Your task to perform on an android device: Open accessibility settings Image 0: 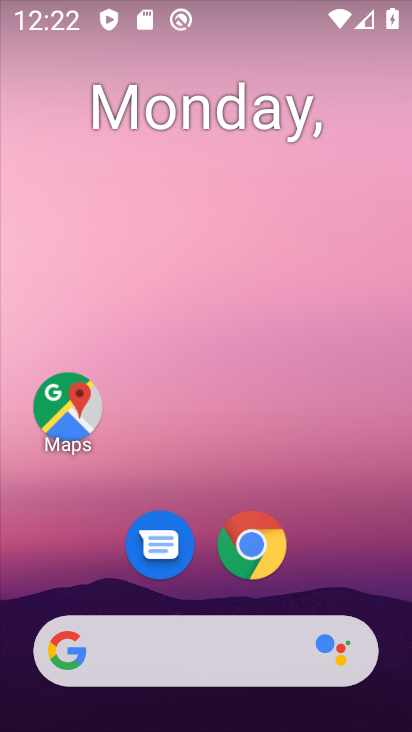
Step 0: drag from (330, 558) to (333, 79)
Your task to perform on an android device: Open accessibility settings Image 1: 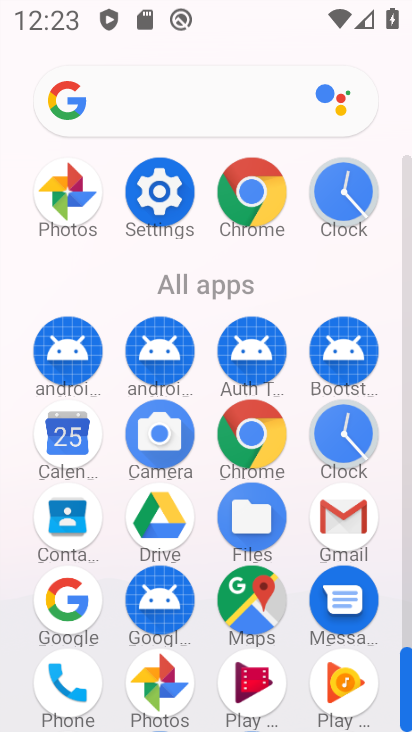
Step 1: click (152, 187)
Your task to perform on an android device: Open accessibility settings Image 2: 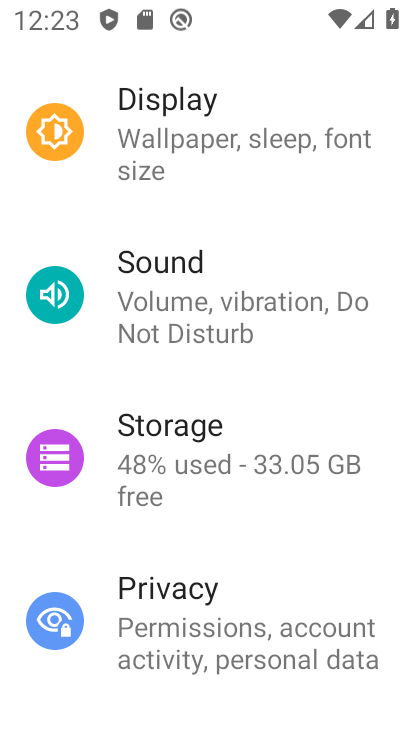
Step 2: drag from (238, 527) to (271, 212)
Your task to perform on an android device: Open accessibility settings Image 3: 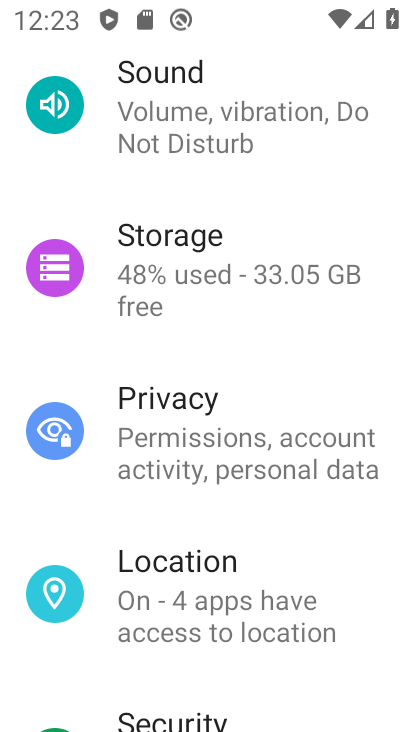
Step 3: drag from (283, 673) to (300, 277)
Your task to perform on an android device: Open accessibility settings Image 4: 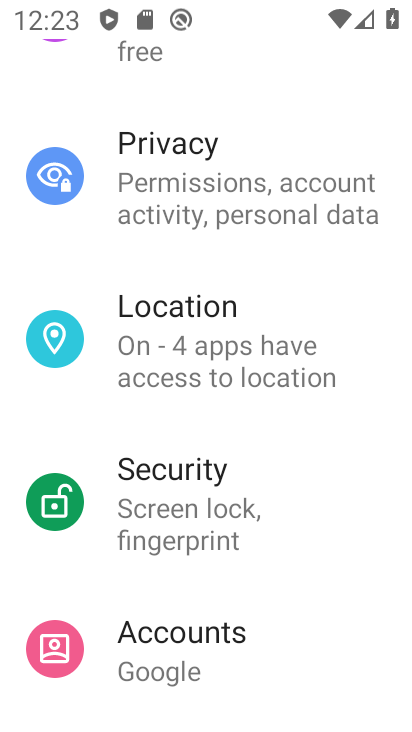
Step 4: drag from (302, 654) to (299, 291)
Your task to perform on an android device: Open accessibility settings Image 5: 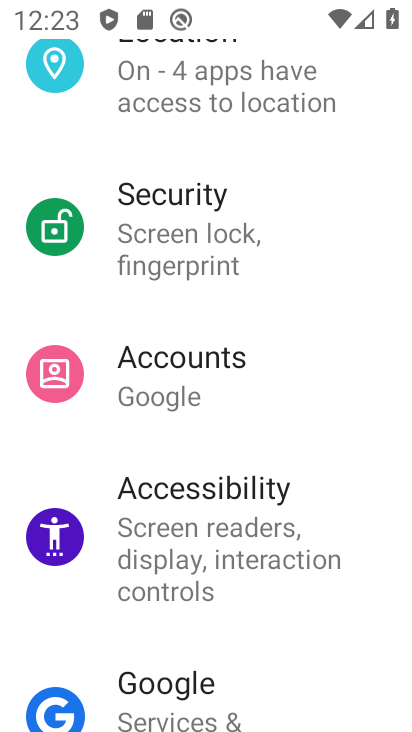
Step 5: click (246, 502)
Your task to perform on an android device: Open accessibility settings Image 6: 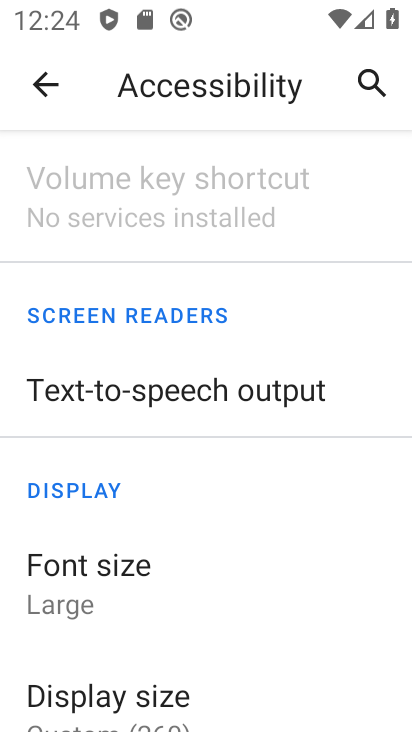
Step 6: task complete